Your task to perform on an android device: toggle show notifications on the lock screen Image 0: 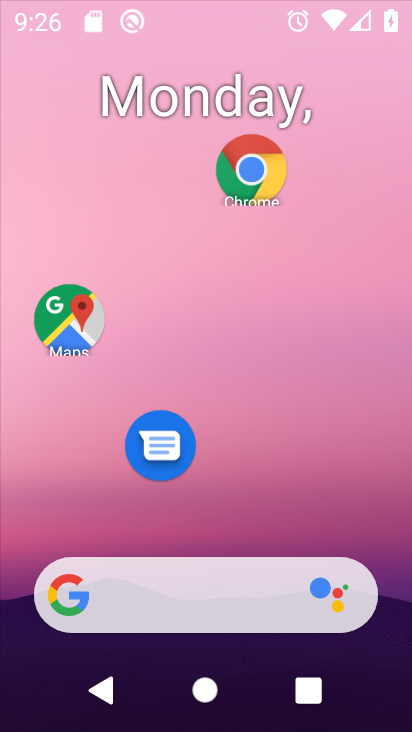
Step 0: press home button
Your task to perform on an android device: toggle show notifications on the lock screen Image 1: 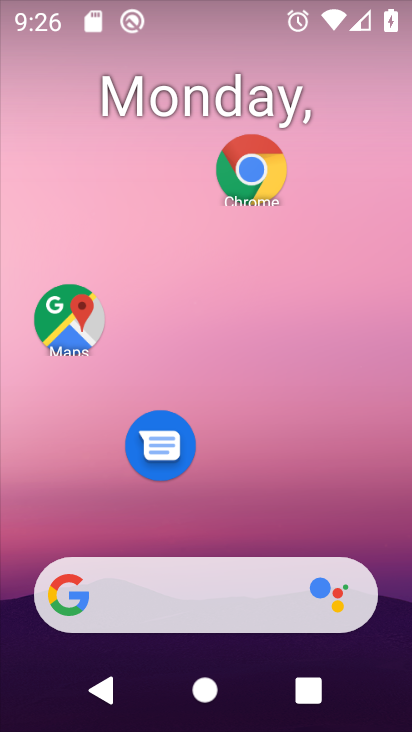
Step 1: drag from (220, 535) to (216, 43)
Your task to perform on an android device: toggle show notifications on the lock screen Image 2: 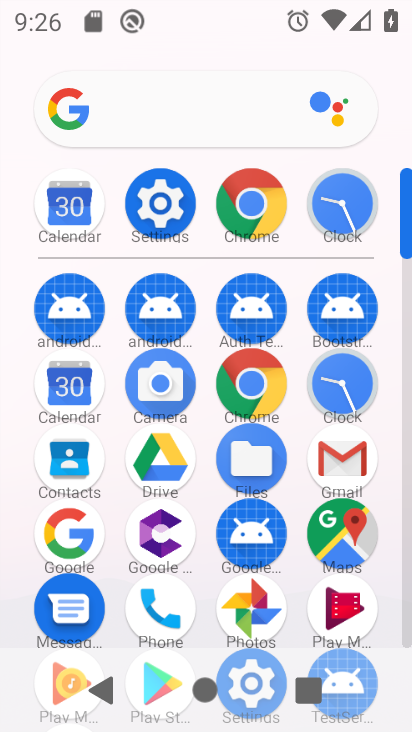
Step 2: click (157, 196)
Your task to perform on an android device: toggle show notifications on the lock screen Image 3: 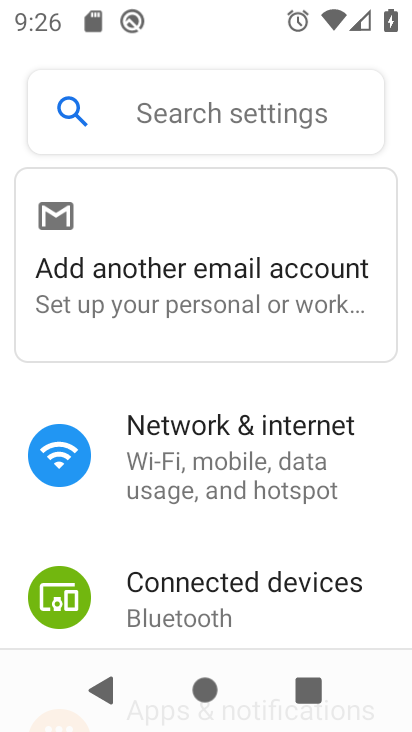
Step 3: drag from (246, 612) to (270, 204)
Your task to perform on an android device: toggle show notifications on the lock screen Image 4: 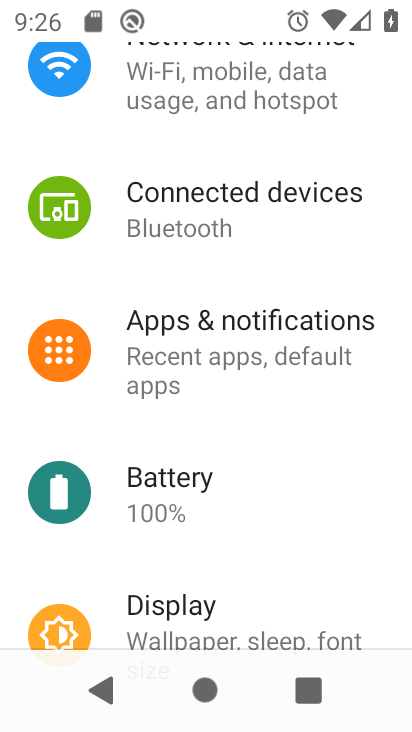
Step 4: click (105, 334)
Your task to perform on an android device: toggle show notifications on the lock screen Image 5: 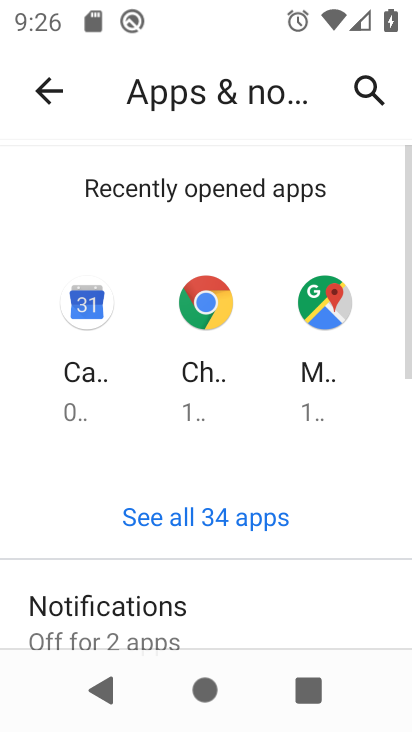
Step 5: click (233, 619)
Your task to perform on an android device: toggle show notifications on the lock screen Image 6: 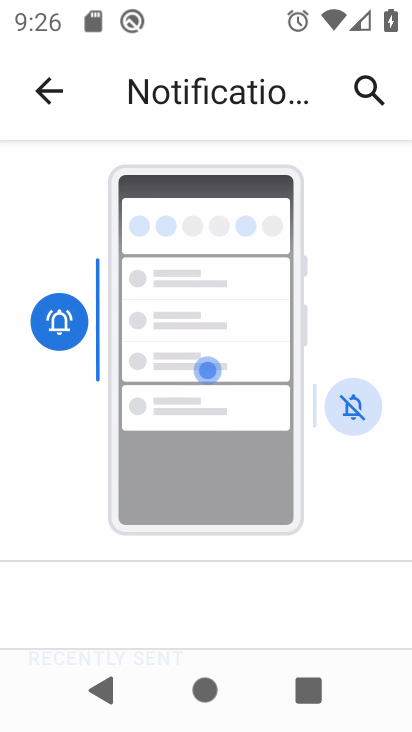
Step 6: drag from (243, 627) to (262, 183)
Your task to perform on an android device: toggle show notifications on the lock screen Image 7: 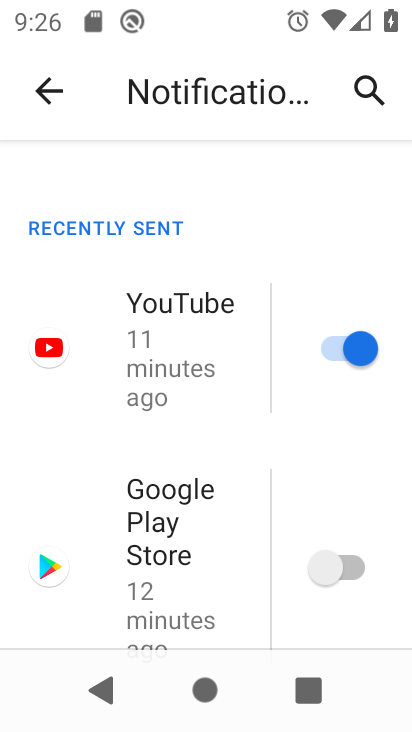
Step 7: drag from (226, 599) to (231, 183)
Your task to perform on an android device: toggle show notifications on the lock screen Image 8: 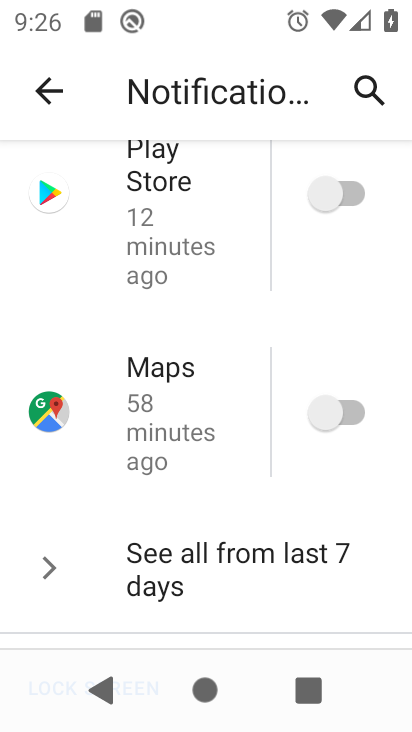
Step 8: drag from (221, 622) to (216, 240)
Your task to perform on an android device: toggle show notifications on the lock screen Image 9: 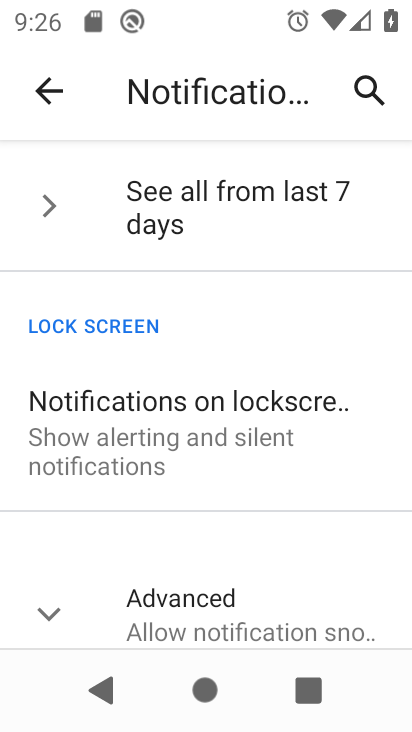
Step 9: click (190, 442)
Your task to perform on an android device: toggle show notifications on the lock screen Image 10: 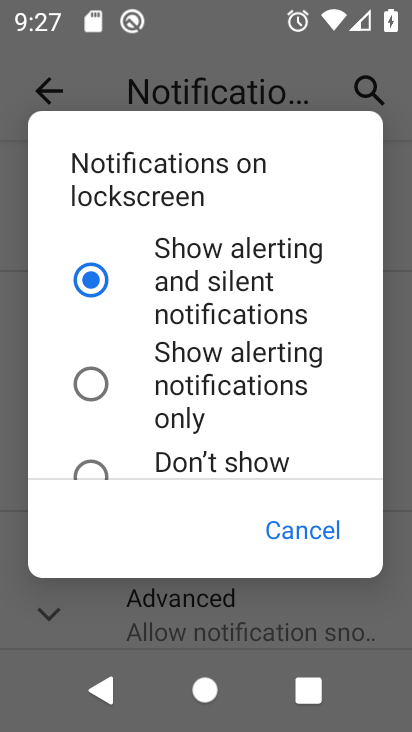
Step 10: click (91, 377)
Your task to perform on an android device: toggle show notifications on the lock screen Image 11: 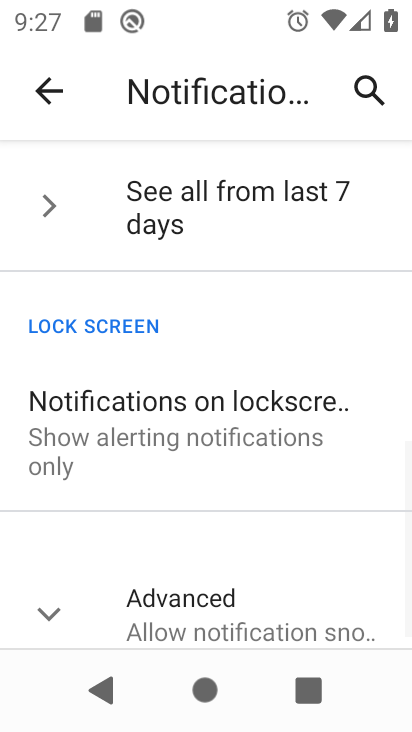
Step 11: task complete